Your task to perform on an android device: see tabs open on other devices in the chrome app Image 0: 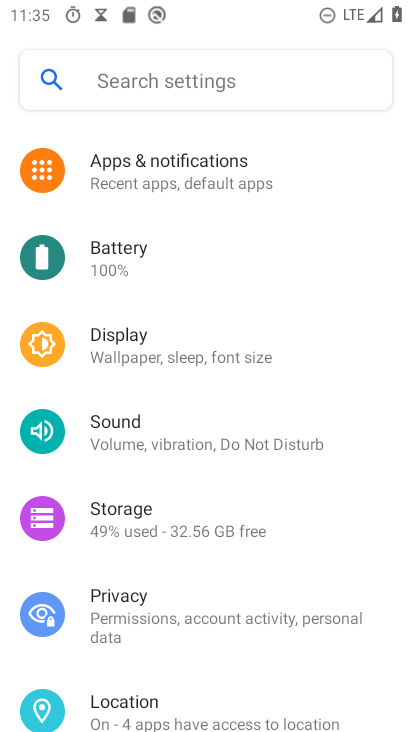
Step 0: press home button
Your task to perform on an android device: see tabs open on other devices in the chrome app Image 1: 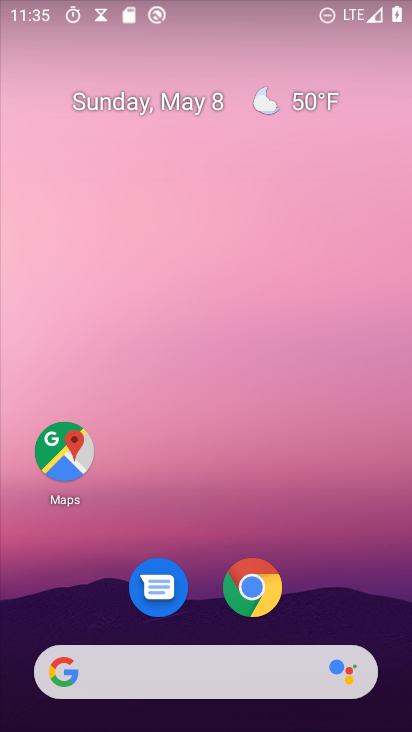
Step 1: click (263, 594)
Your task to perform on an android device: see tabs open on other devices in the chrome app Image 2: 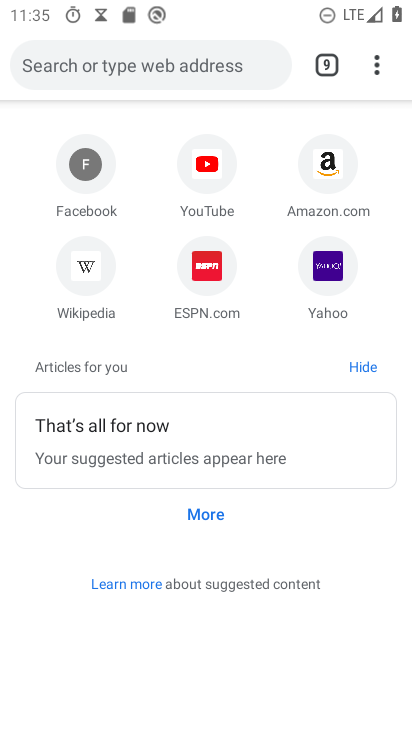
Step 2: task complete